Your task to perform on an android device: Open ESPN.com Image 0: 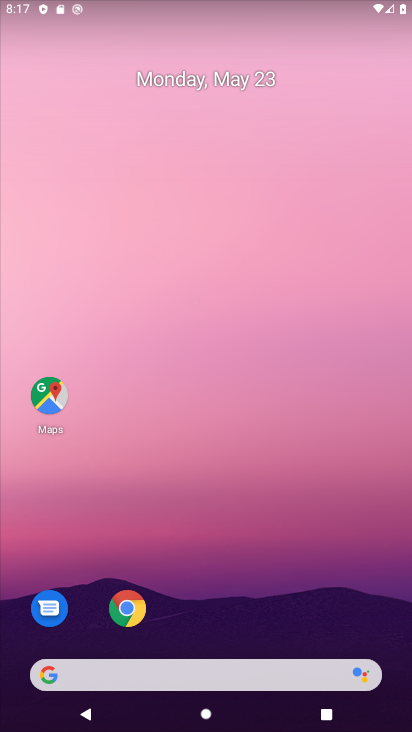
Step 0: drag from (245, 726) to (249, 127)
Your task to perform on an android device: Open ESPN.com Image 1: 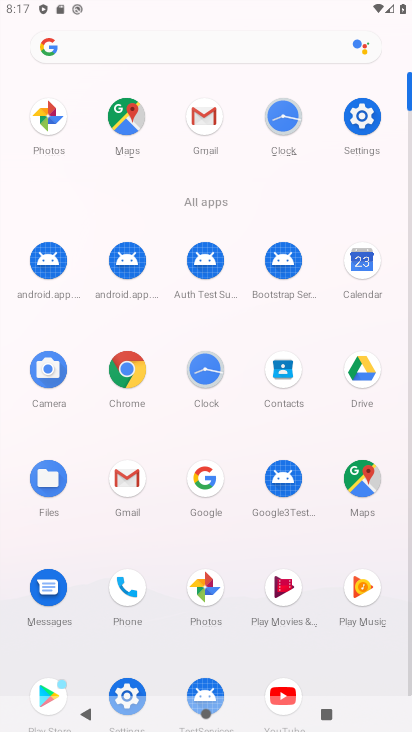
Step 1: click (131, 365)
Your task to perform on an android device: Open ESPN.com Image 2: 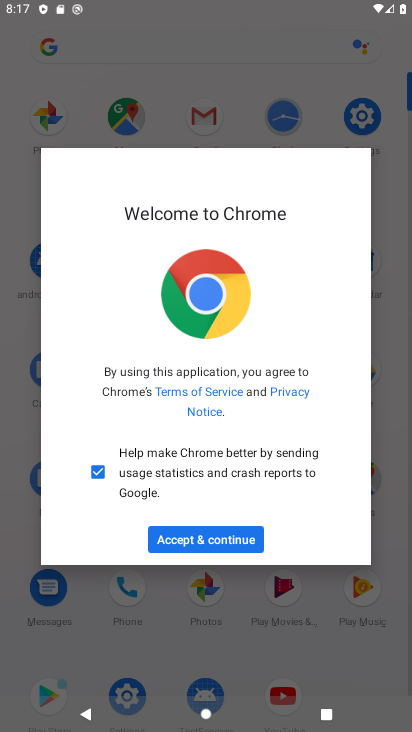
Step 2: click (207, 540)
Your task to perform on an android device: Open ESPN.com Image 3: 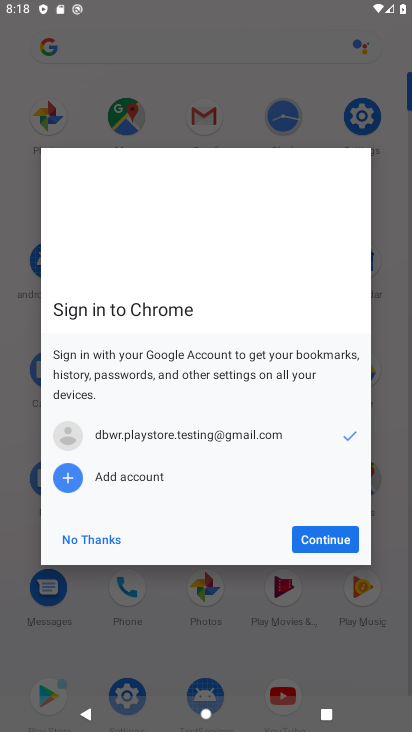
Step 3: click (309, 533)
Your task to perform on an android device: Open ESPN.com Image 4: 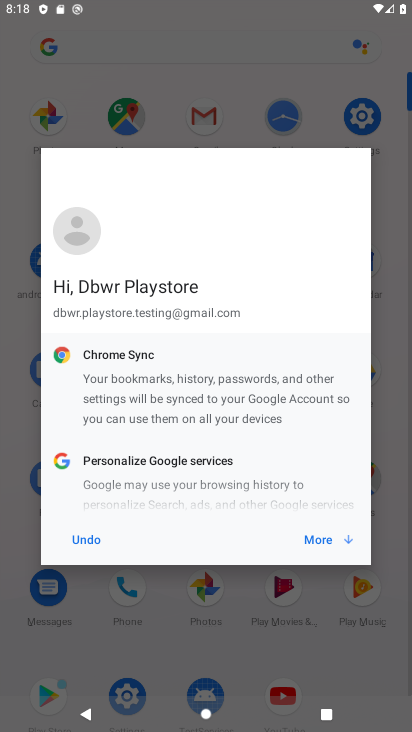
Step 4: click (311, 535)
Your task to perform on an android device: Open ESPN.com Image 5: 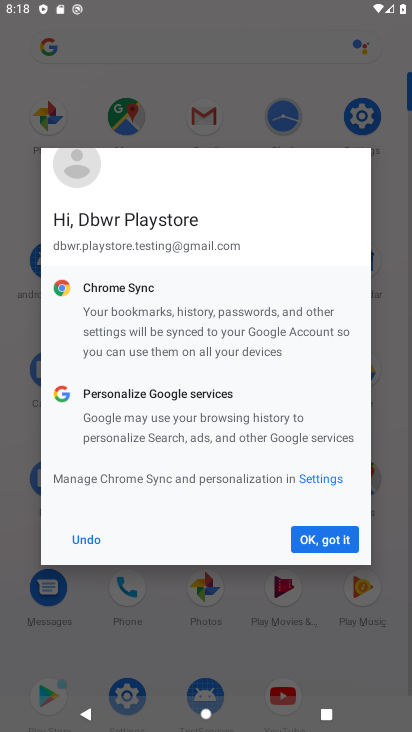
Step 5: click (311, 535)
Your task to perform on an android device: Open ESPN.com Image 6: 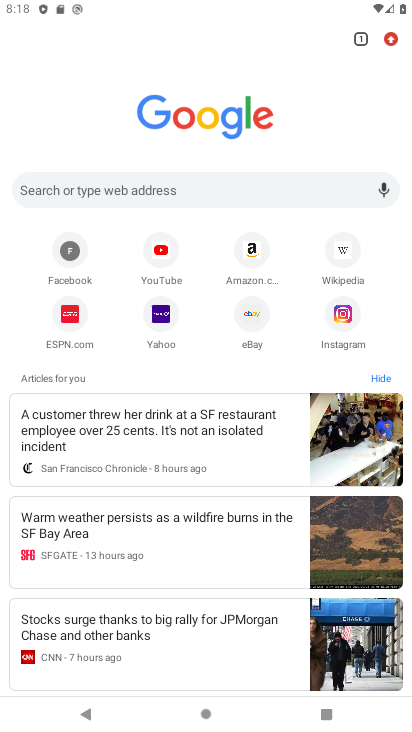
Step 6: click (70, 319)
Your task to perform on an android device: Open ESPN.com Image 7: 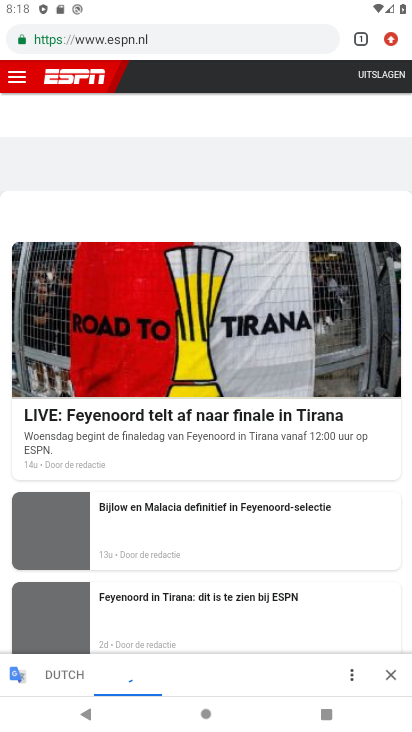
Step 7: task complete